Your task to perform on an android device: snooze an email in the gmail app Image 0: 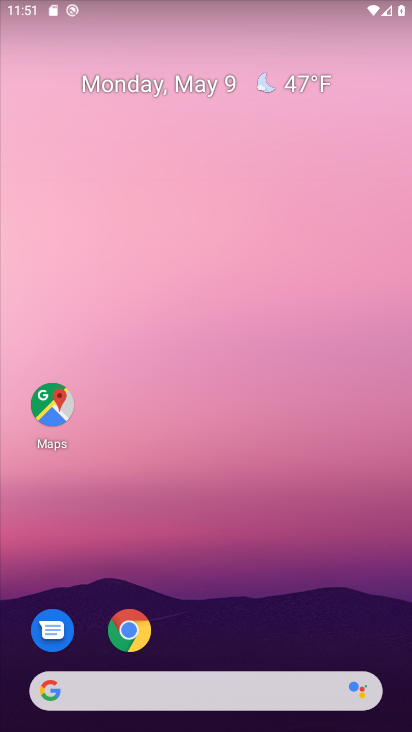
Step 0: drag from (204, 606) to (145, 246)
Your task to perform on an android device: snooze an email in the gmail app Image 1: 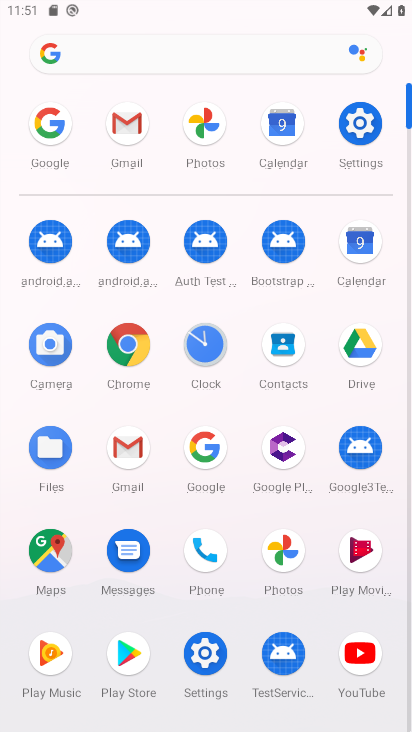
Step 1: click (124, 443)
Your task to perform on an android device: snooze an email in the gmail app Image 2: 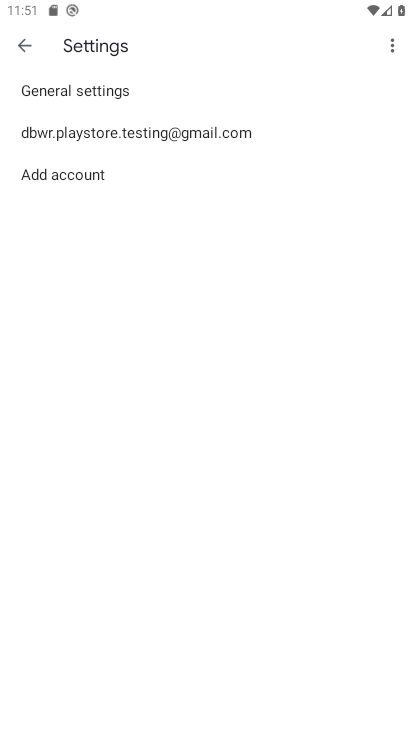
Step 2: press back button
Your task to perform on an android device: snooze an email in the gmail app Image 3: 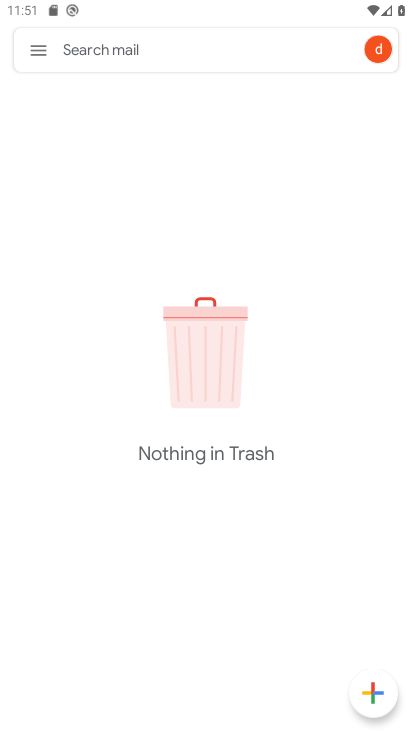
Step 3: click (33, 59)
Your task to perform on an android device: snooze an email in the gmail app Image 4: 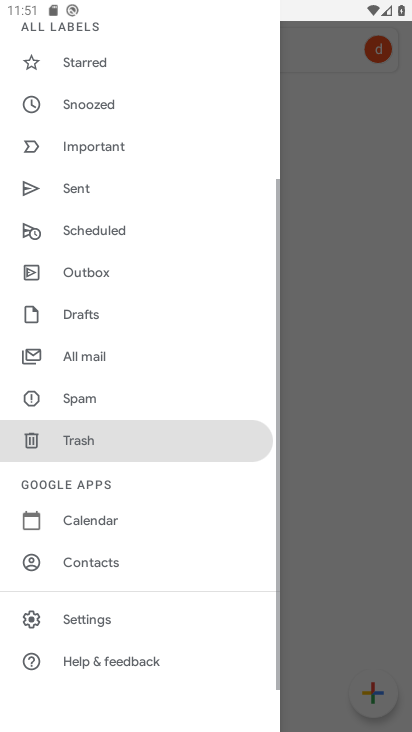
Step 4: drag from (118, 112) to (130, 486)
Your task to perform on an android device: snooze an email in the gmail app Image 5: 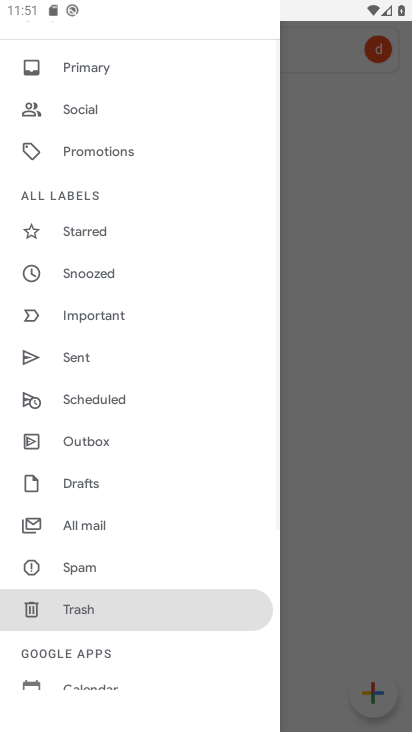
Step 5: click (84, 96)
Your task to perform on an android device: snooze an email in the gmail app Image 6: 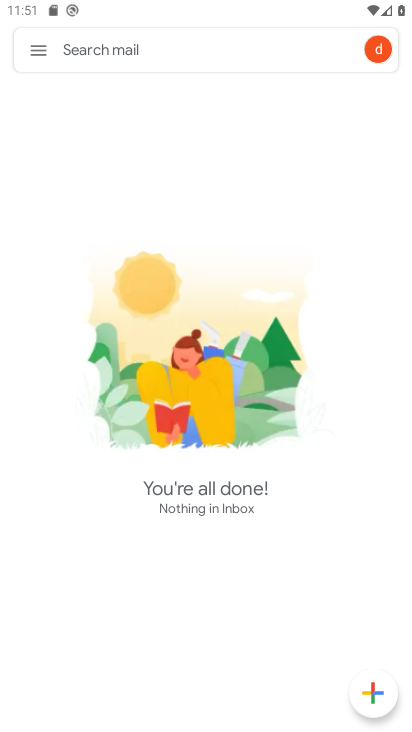
Step 6: task complete